Your task to perform on an android device: search for starred emails in the gmail app Image 0: 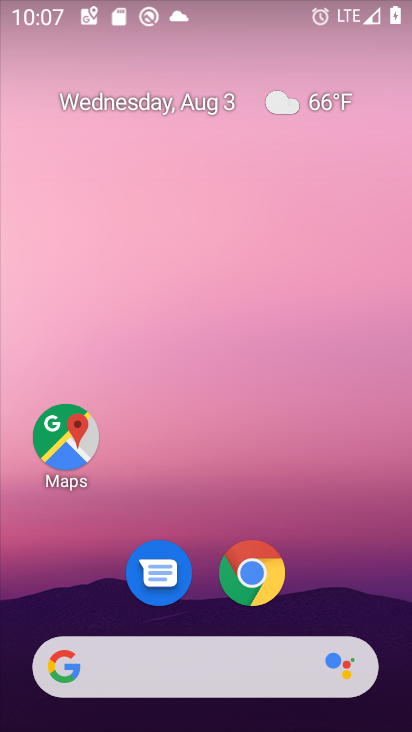
Step 0: drag from (343, 586) to (313, 0)
Your task to perform on an android device: search for starred emails in the gmail app Image 1: 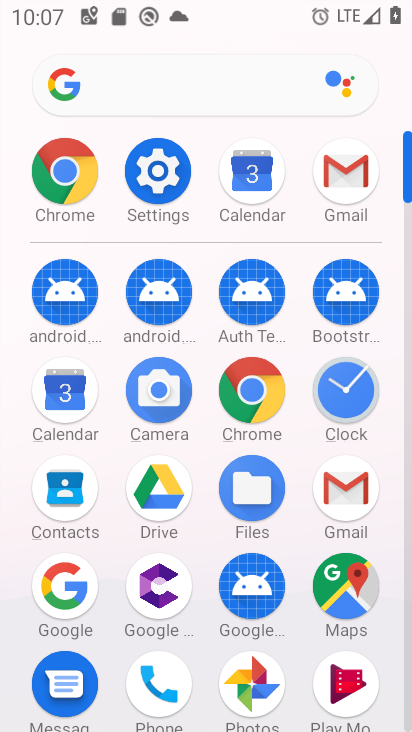
Step 1: click (344, 178)
Your task to perform on an android device: search for starred emails in the gmail app Image 2: 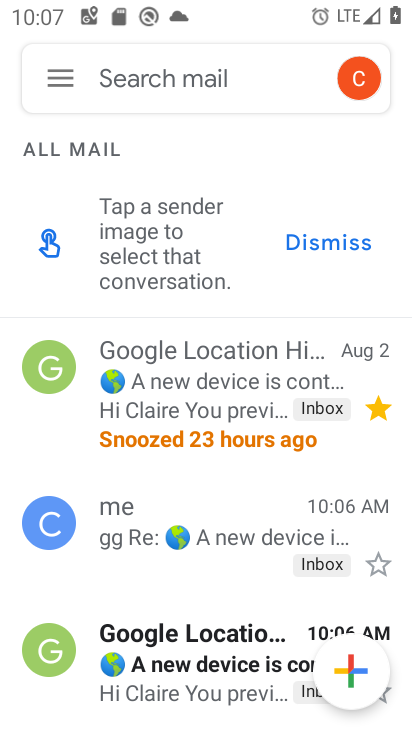
Step 2: click (54, 82)
Your task to perform on an android device: search for starred emails in the gmail app Image 3: 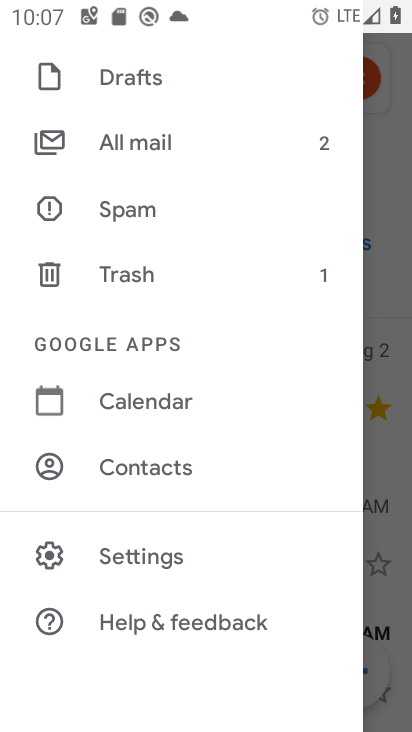
Step 3: drag from (221, 252) to (222, 592)
Your task to perform on an android device: search for starred emails in the gmail app Image 4: 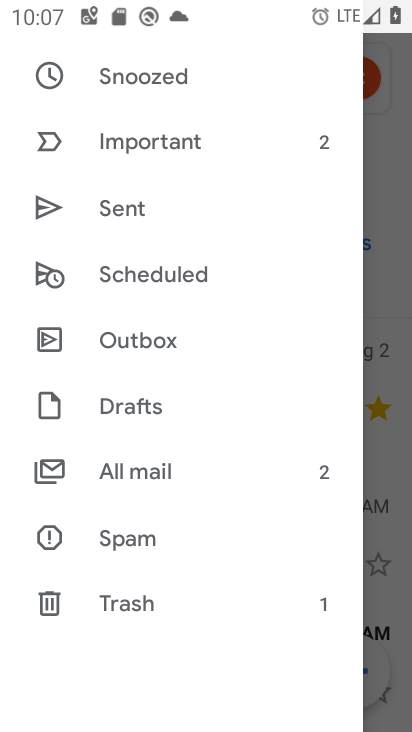
Step 4: drag from (148, 168) to (168, 498)
Your task to perform on an android device: search for starred emails in the gmail app Image 5: 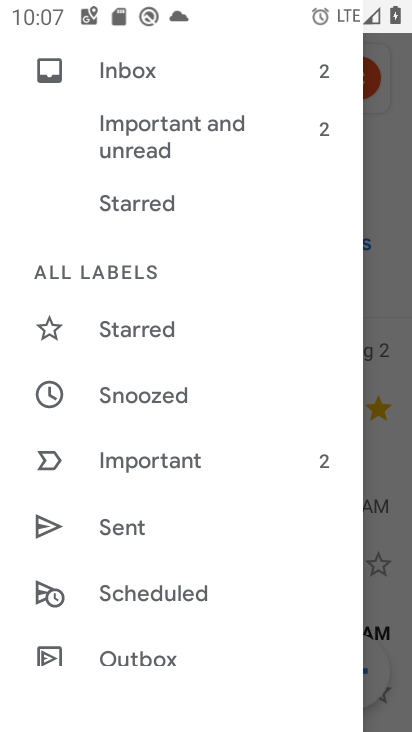
Step 5: click (126, 329)
Your task to perform on an android device: search for starred emails in the gmail app Image 6: 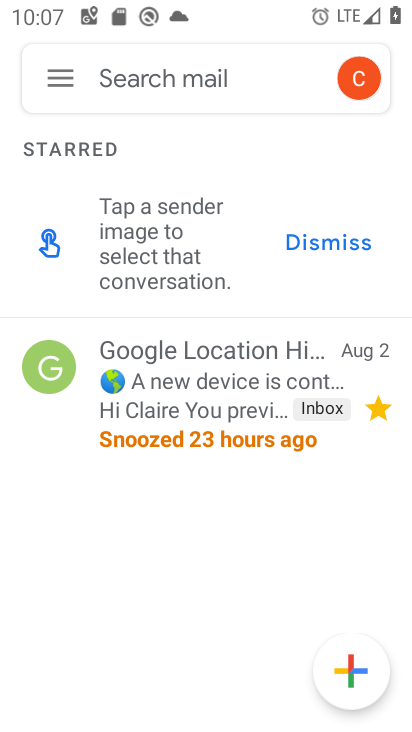
Step 6: task complete